Your task to perform on an android device: turn on sleep mode Image 0: 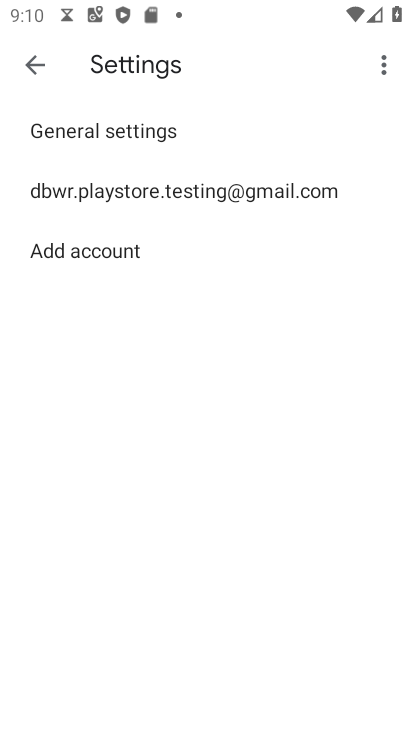
Step 0: press home button
Your task to perform on an android device: turn on sleep mode Image 1: 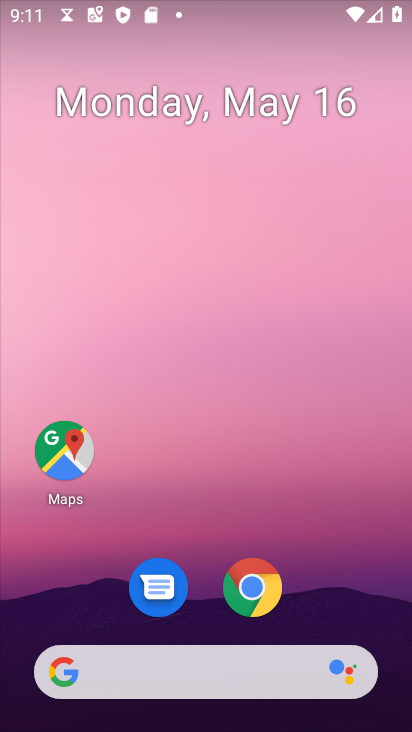
Step 1: drag from (342, 611) to (287, 146)
Your task to perform on an android device: turn on sleep mode Image 2: 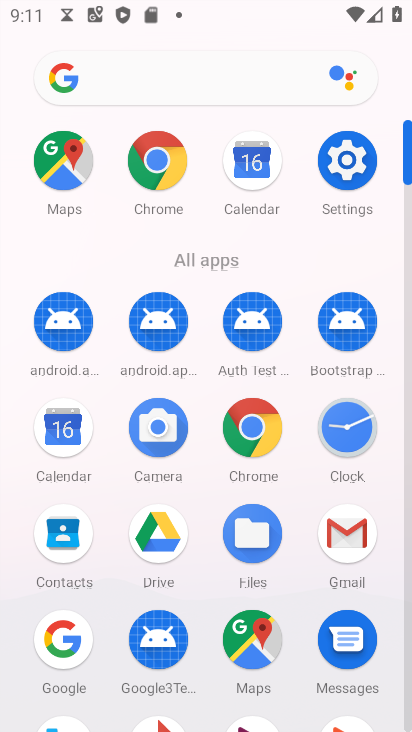
Step 2: click (364, 151)
Your task to perform on an android device: turn on sleep mode Image 3: 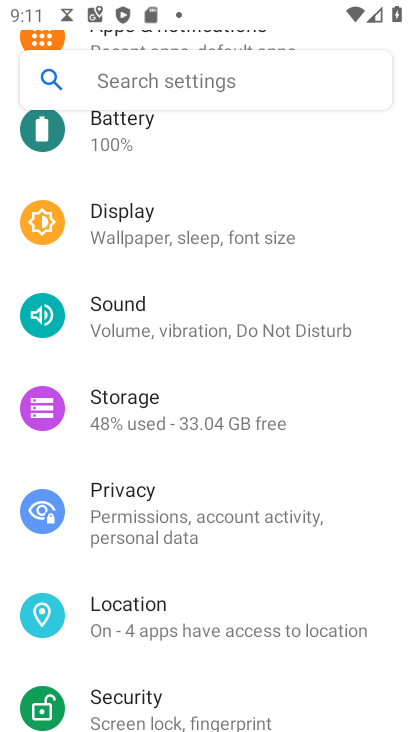
Step 3: click (283, 245)
Your task to perform on an android device: turn on sleep mode Image 4: 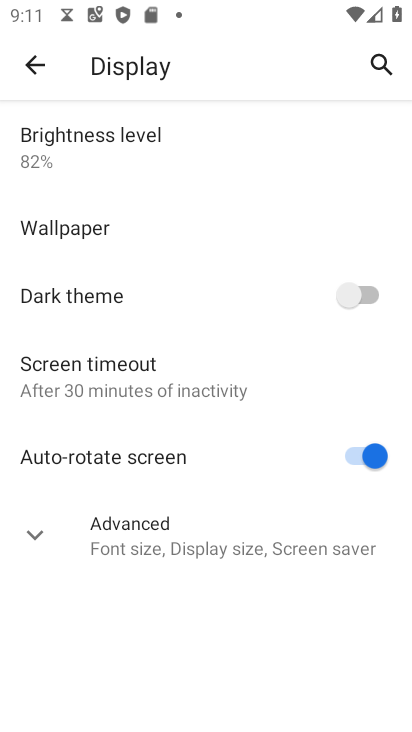
Step 4: click (155, 525)
Your task to perform on an android device: turn on sleep mode Image 5: 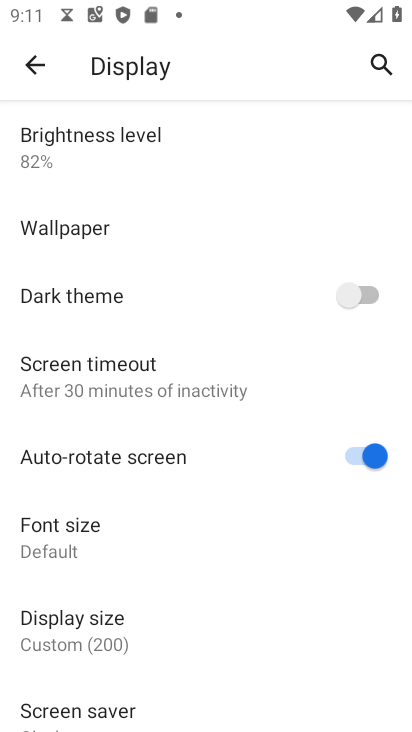
Step 5: task complete